Your task to perform on an android device: Check the news Image 0: 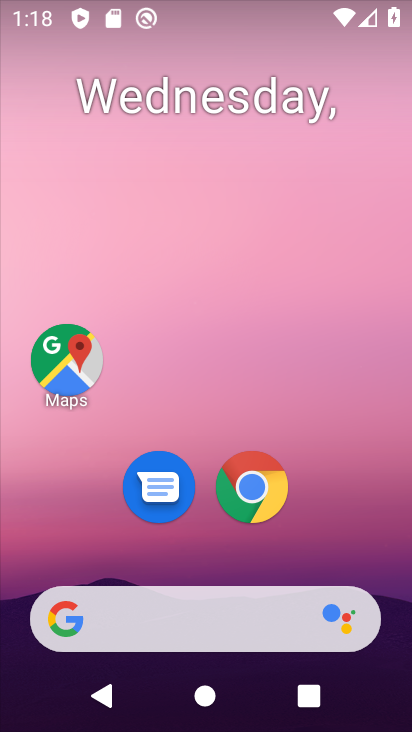
Step 0: drag from (21, 238) to (381, 240)
Your task to perform on an android device: Check the news Image 1: 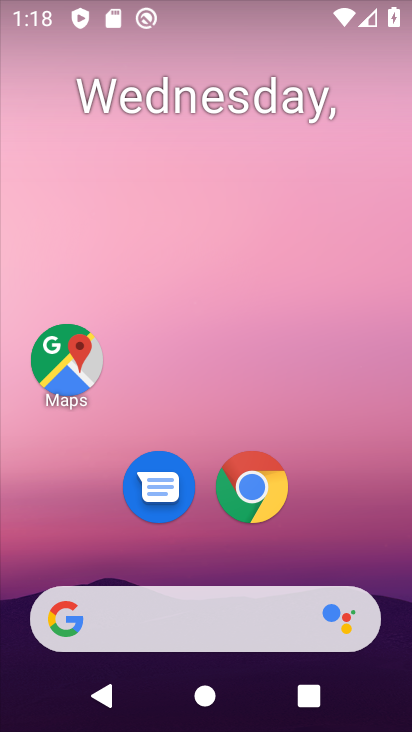
Step 1: drag from (17, 201) to (400, 351)
Your task to perform on an android device: Check the news Image 2: 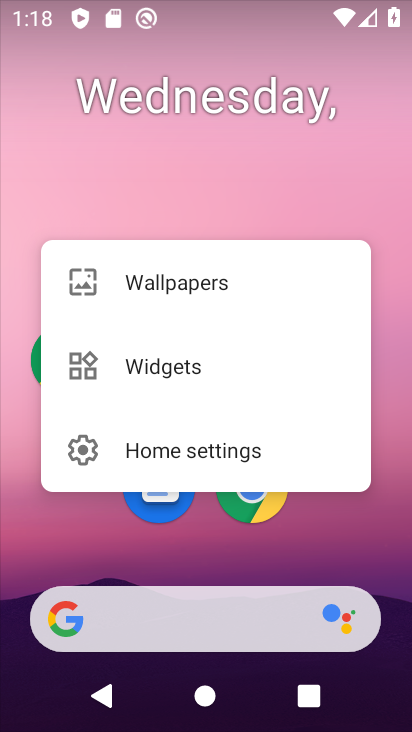
Step 2: click (102, 194)
Your task to perform on an android device: Check the news Image 3: 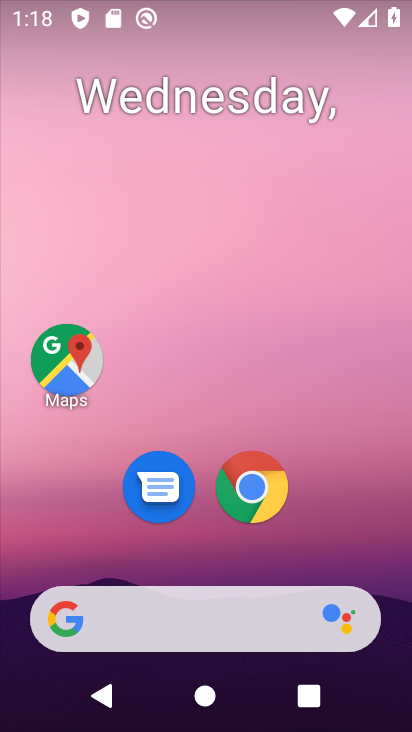
Step 3: drag from (6, 189) to (339, 155)
Your task to perform on an android device: Check the news Image 4: 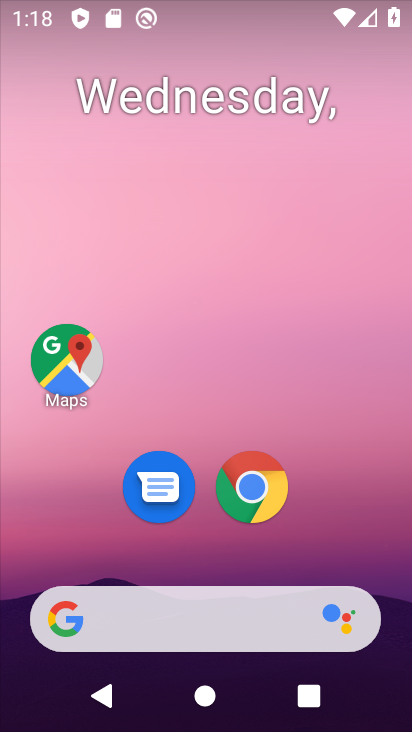
Step 4: click (204, 609)
Your task to perform on an android device: Check the news Image 5: 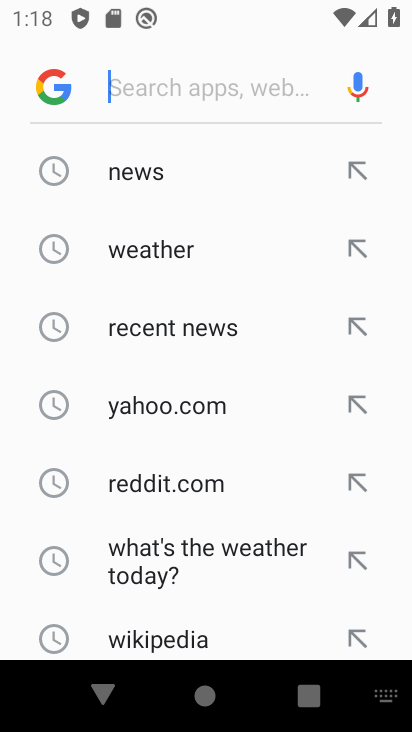
Step 5: click (159, 167)
Your task to perform on an android device: Check the news Image 6: 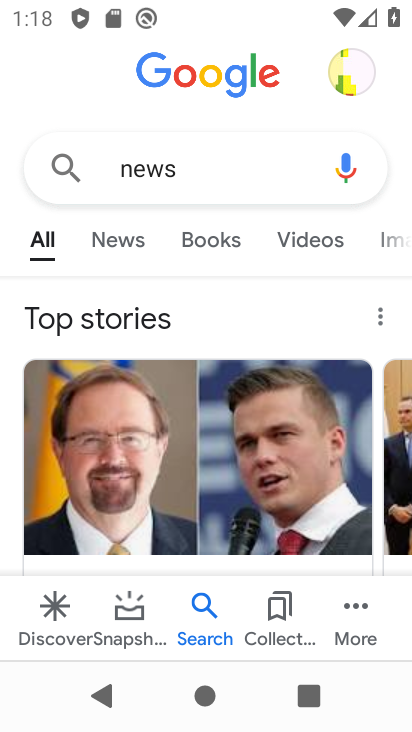
Step 6: task complete